Your task to perform on an android device: find snoozed emails in the gmail app Image 0: 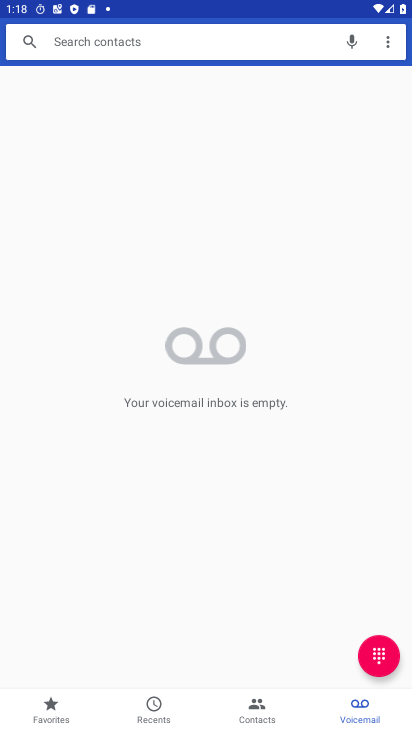
Step 0: press home button
Your task to perform on an android device: find snoozed emails in the gmail app Image 1: 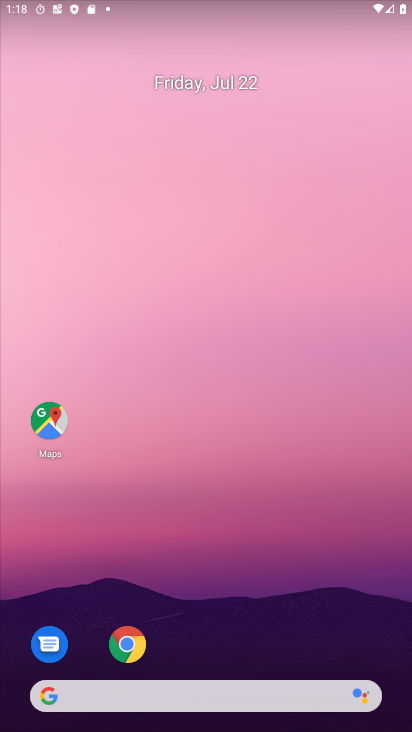
Step 1: drag from (211, 691) to (219, 140)
Your task to perform on an android device: find snoozed emails in the gmail app Image 2: 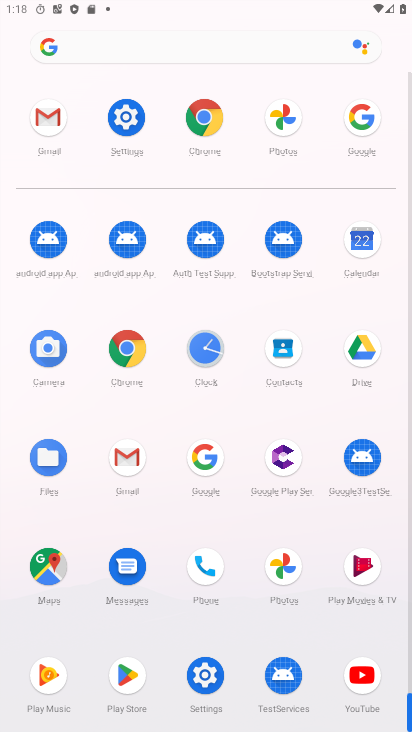
Step 2: click (38, 140)
Your task to perform on an android device: find snoozed emails in the gmail app Image 3: 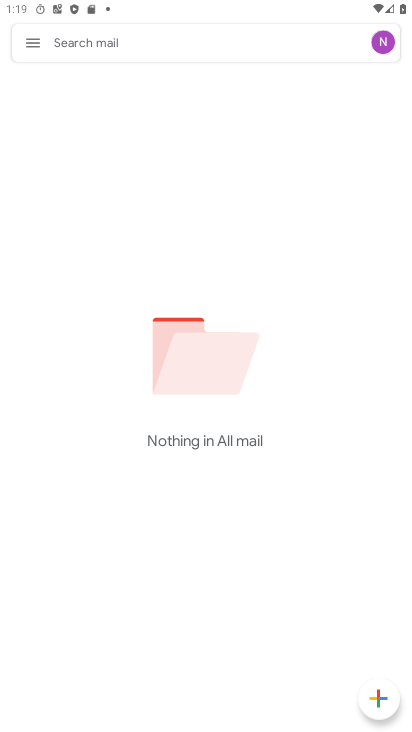
Step 3: click (33, 42)
Your task to perform on an android device: find snoozed emails in the gmail app Image 4: 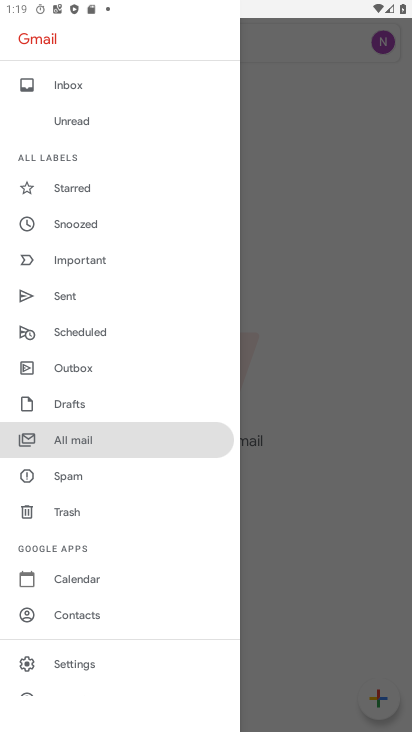
Step 4: click (98, 223)
Your task to perform on an android device: find snoozed emails in the gmail app Image 5: 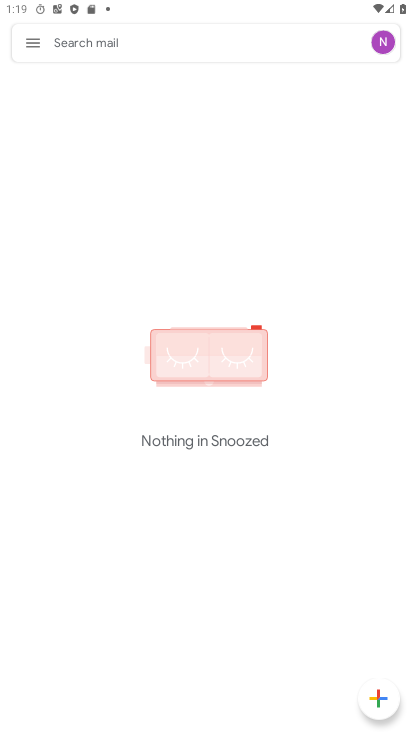
Step 5: task complete